Your task to perform on an android device: turn off improve location accuracy Image 0: 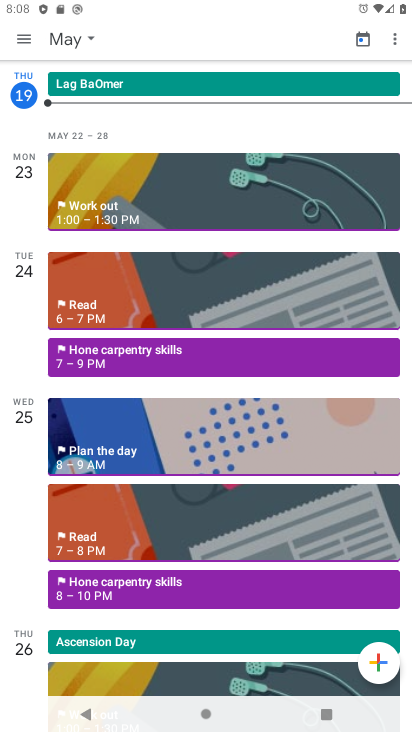
Step 0: press home button
Your task to perform on an android device: turn off improve location accuracy Image 1: 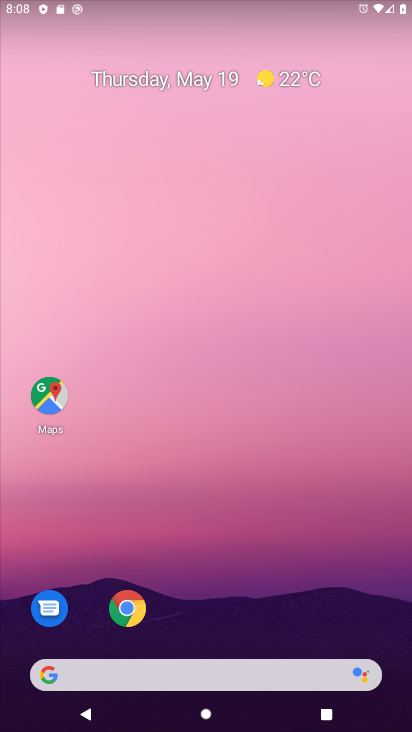
Step 1: click (53, 395)
Your task to perform on an android device: turn off improve location accuracy Image 2: 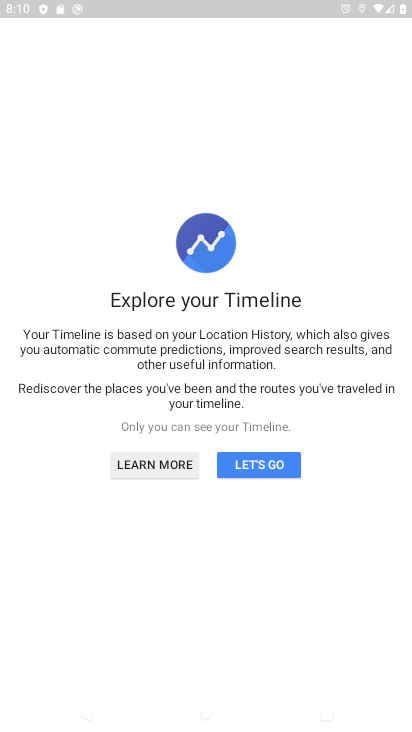
Step 2: press back button
Your task to perform on an android device: turn off improve location accuracy Image 3: 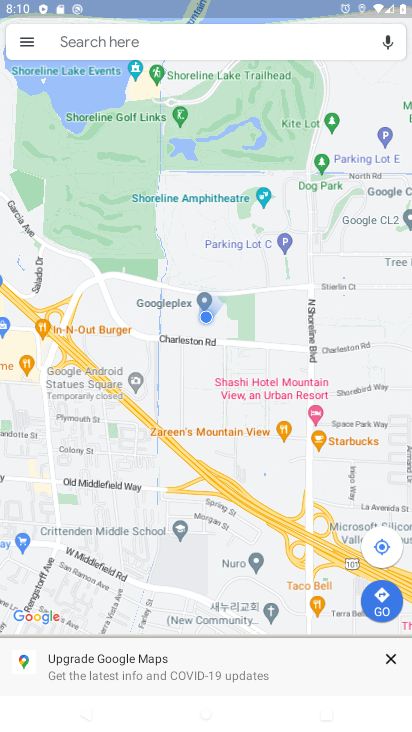
Step 3: click (25, 48)
Your task to perform on an android device: turn off improve location accuracy Image 4: 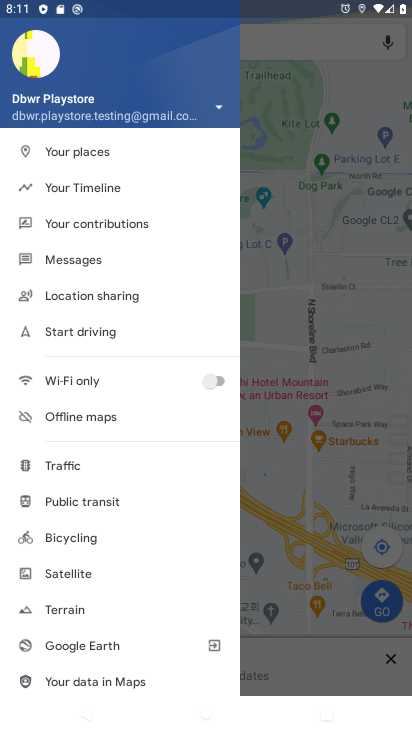
Step 4: drag from (107, 618) to (191, 35)
Your task to perform on an android device: turn off improve location accuracy Image 5: 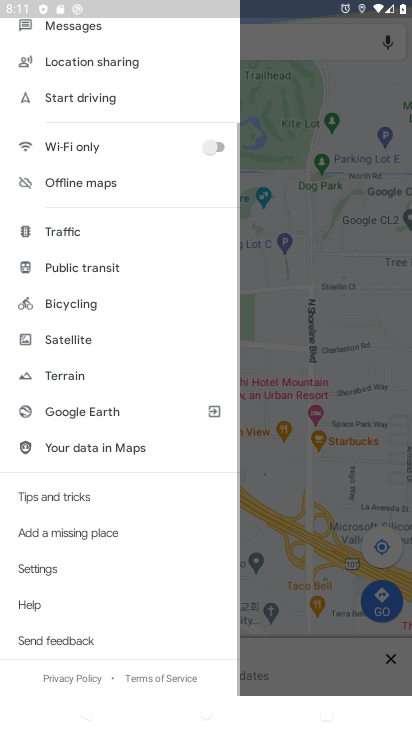
Step 5: click (85, 567)
Your task to perform on an android device: turn off improve location accuracy Image 6: 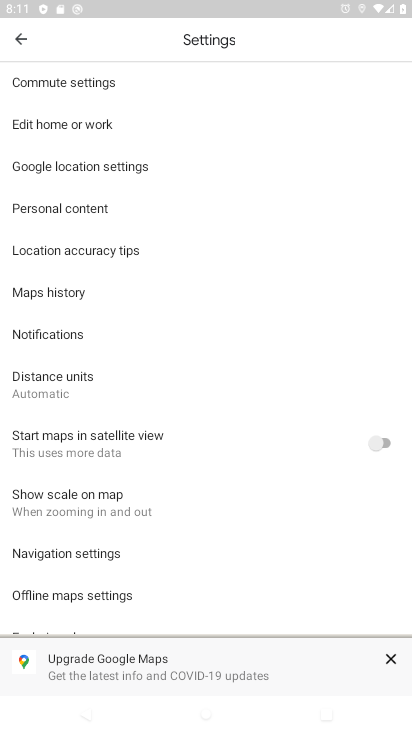
Step 6: click (140, 162)
Your task to perform on an android device: turn off improve location accuracy Image 7: 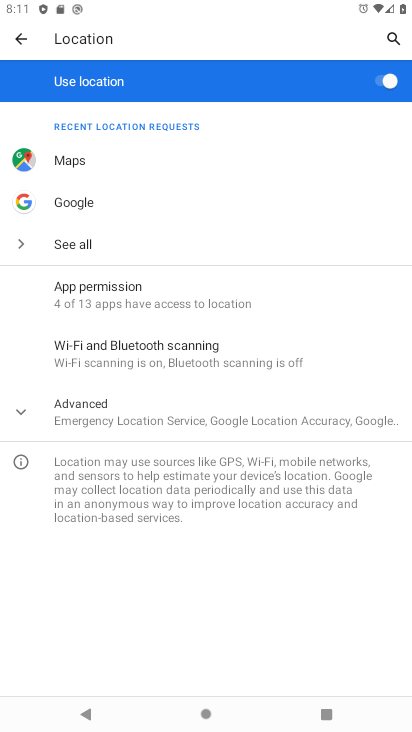
Step 7: click (243, 415)
Your task to perform on an android device: turn off improve location accuracy Image 8: 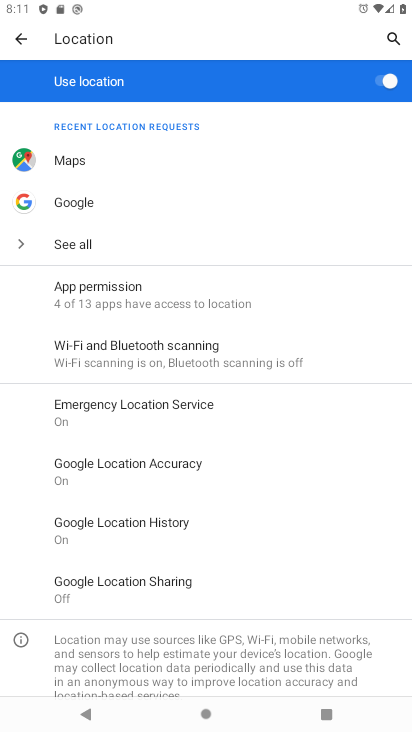
Step 8: click (188, 473)
Your task to perform on an android device: turn off improve location accuracy Image 9: 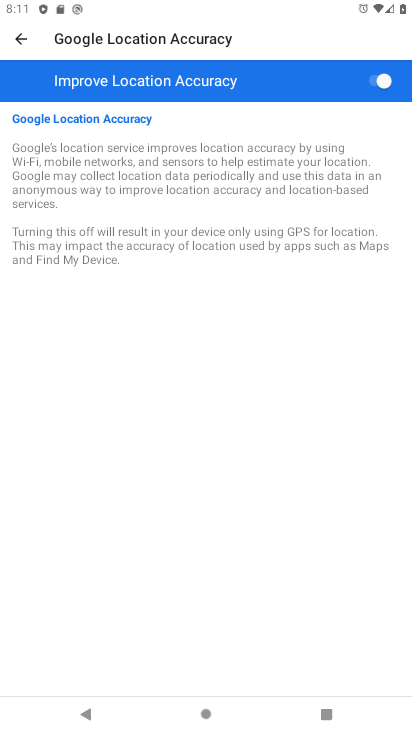
Step 9: click (394, 72)
Your task to perform on an android device: turn off improve location accuracy Image 10: 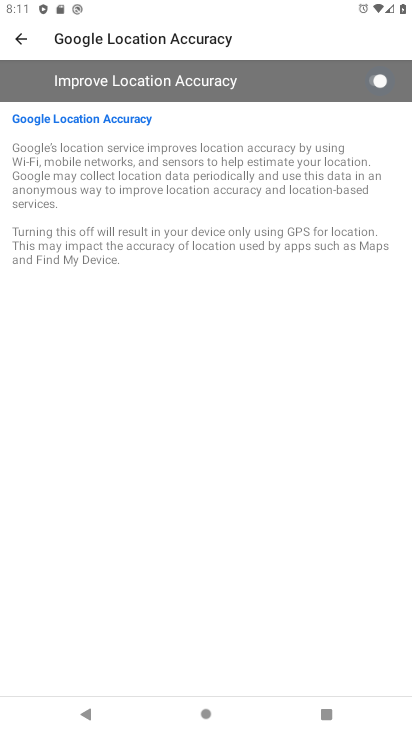
Step 10: click (382, 80)
Your task to perform on an android device: turn off improve location accuracy Image 11: 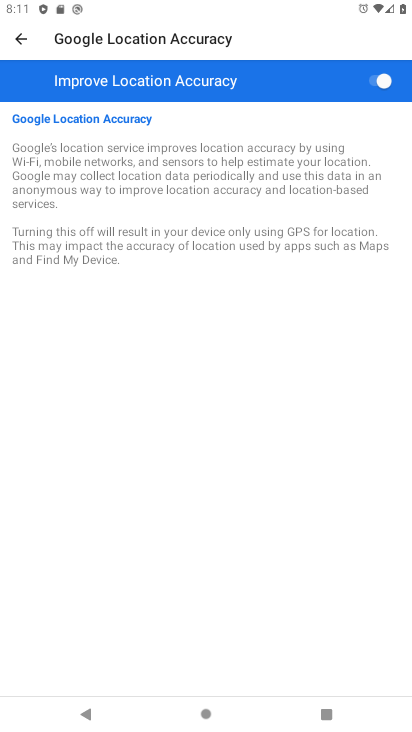
Step 11: task complete